Your task to perform on an android device: turn on improve location accuracy Image 0: 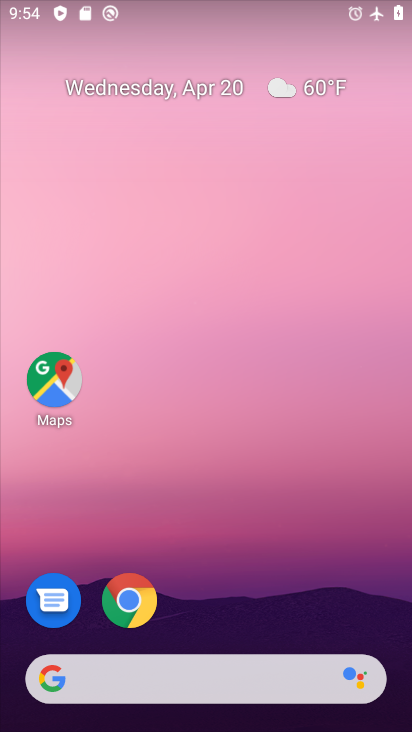
Step 0: click (128, 606)
Your task to perform on an android device: turn on improve location accuracy Image 1: 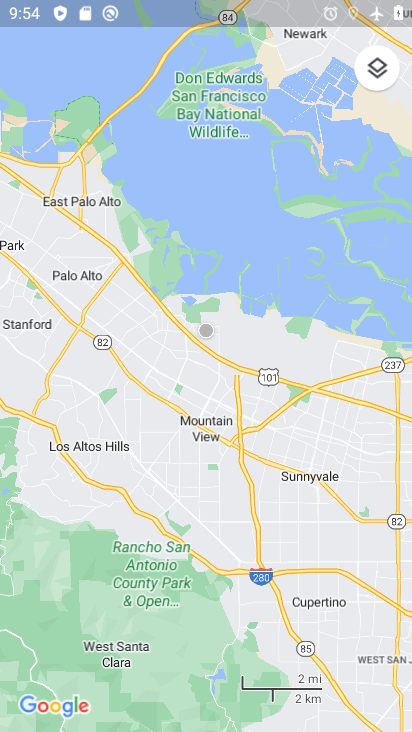
Step 1: press home button
Your task to perform on an android device: turn on improve location accuracy Image 2: 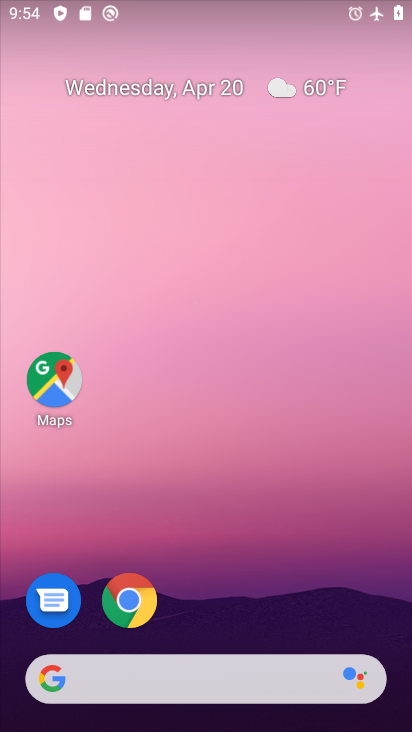
Step 2: drag from (205, 643) to (200, 25)
Your task to perform on an android device: turn on improve location accuracy Image 3: 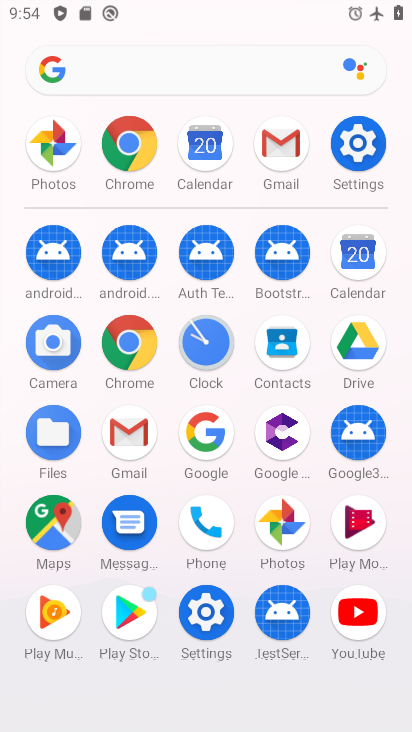
Step 3: click (358, 140)
Your task to perform on an android device: turn on improve location accuracy Image 4: 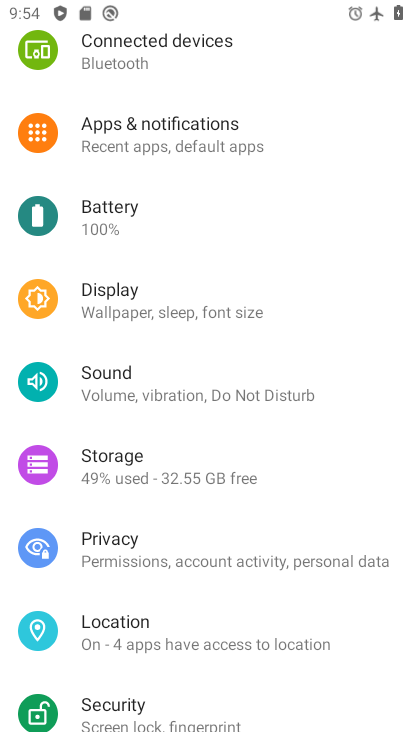
Step 4: click (134, 608)
Your task to perform on an android device: turn on improve location accuracy Image 5: 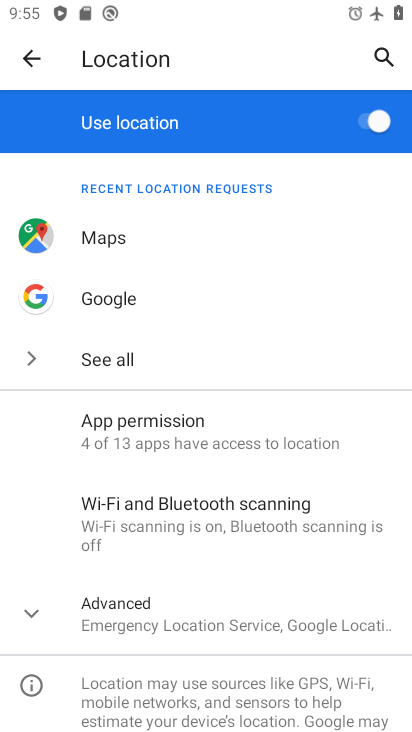
Step 5: drag from (205, 533) to (184, 222)
Your task to perform on an android device: turn on improve location accuracy Image 6: 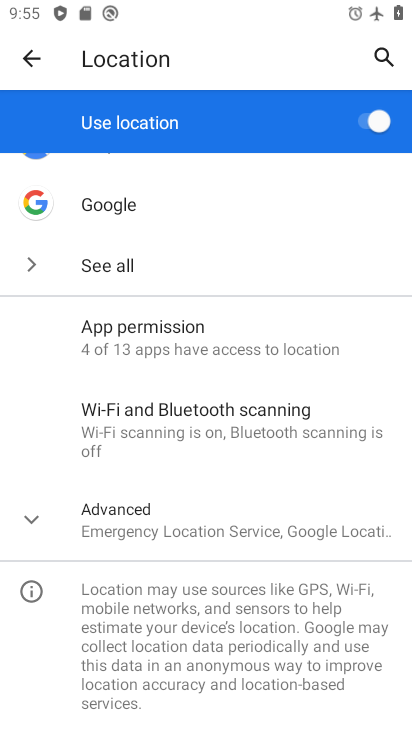
Step 6: click (149, 508)
Your task to perform on an android device: turn on improve location accuracy Image 7: 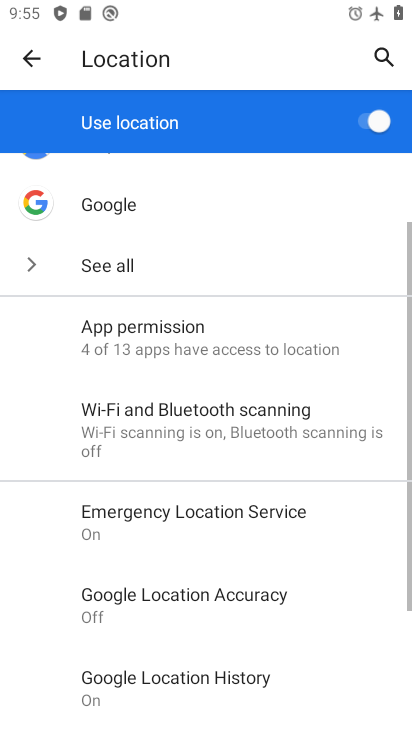
Step 7: drag from (150, 510) to (150, 310)
Your task to perform on an android device: turn on improve location accuracy Image 8: 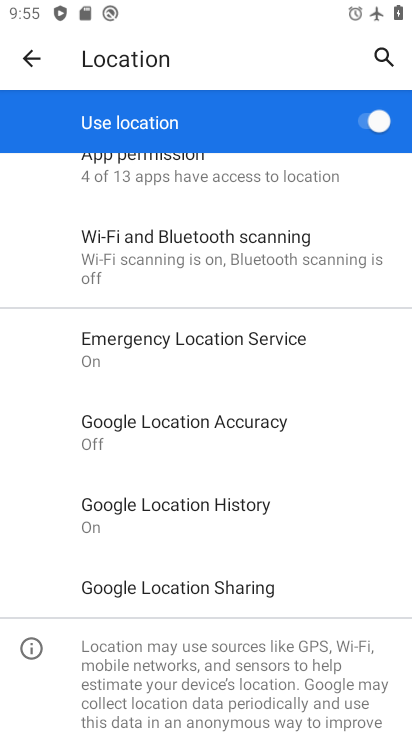
Step 8: click (165, 434)
Your task to perform on an android device: turn on improve location accuracy Image 9: 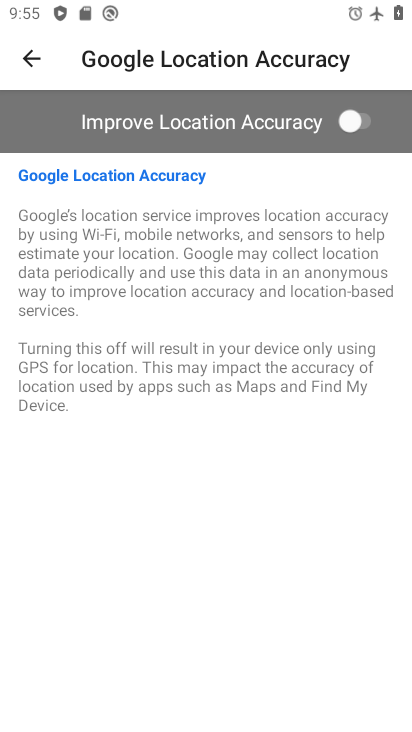
Step 9: click (355, 116)
Your task to perform on an android device: turn on improve location accuracy Image 10: 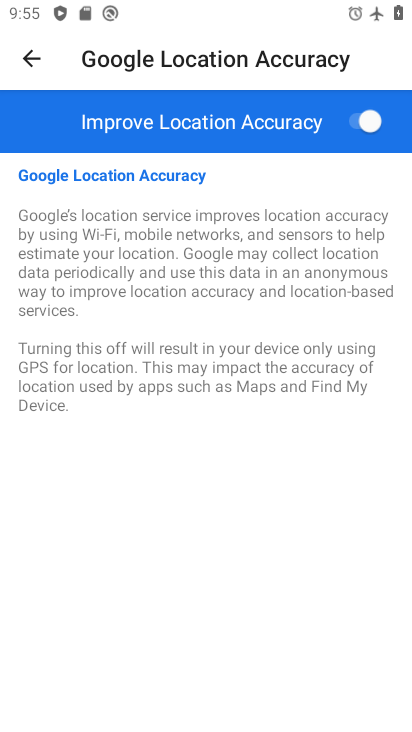
Step 10: task complete